Your task to perform on an android device: Go to CNN.com Image 0: 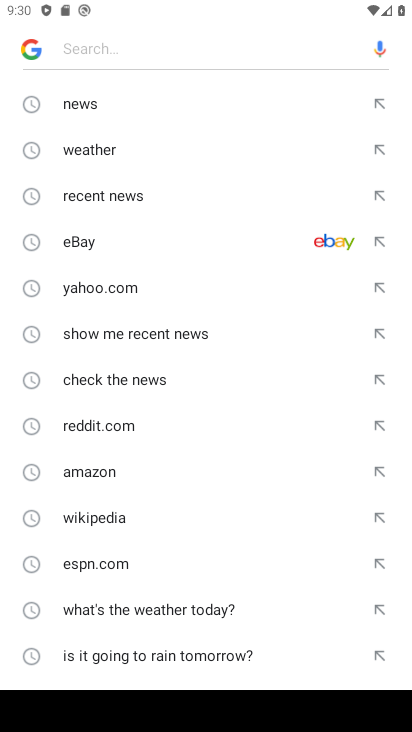
Step 0: press home button
Your task to perform on an android device: Go to CNN.com Image 1: 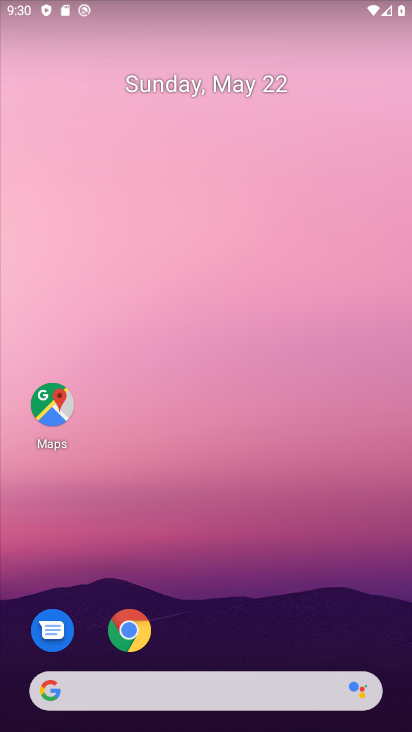
Step 1: click (131, 619)
Your task to perform on an android device: Go to CNN.com Image 2: 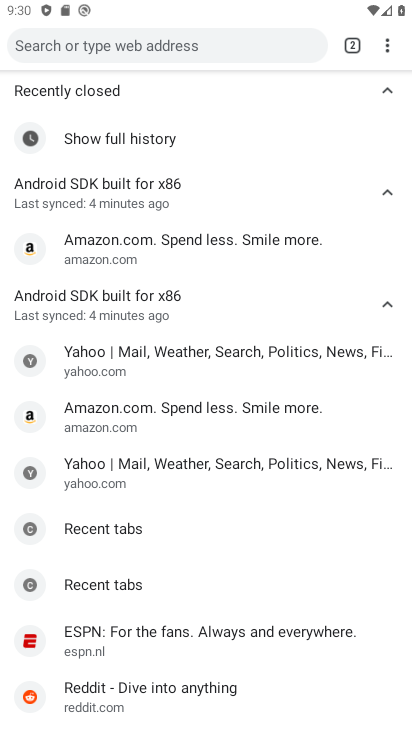
Step 2: click (268, 37)
Your task to perform on an android device: Go to CNN.com Image 3: 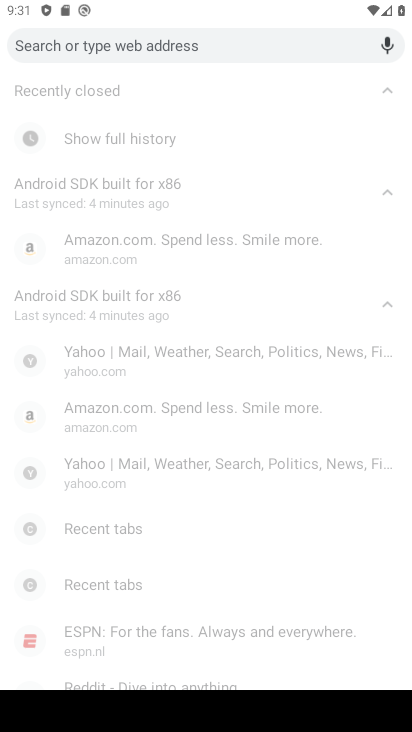
Step 3: type "CNN.com"
Your task to perform on an android device: Go to CNN.com Image 4: 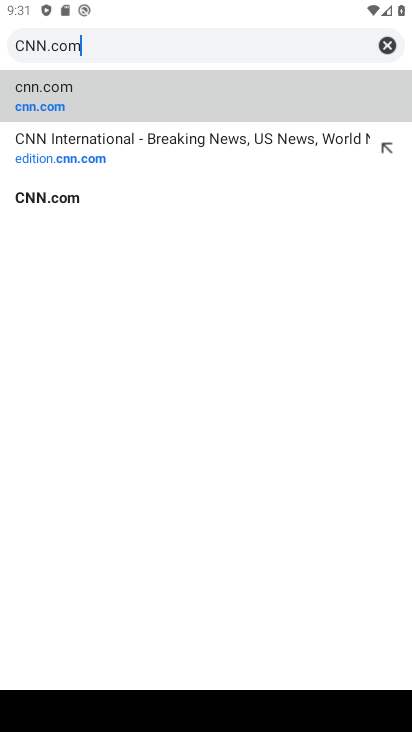
Step 4: task complete